Your task to perform on an android device: turn on bluetooth scan Image 0: 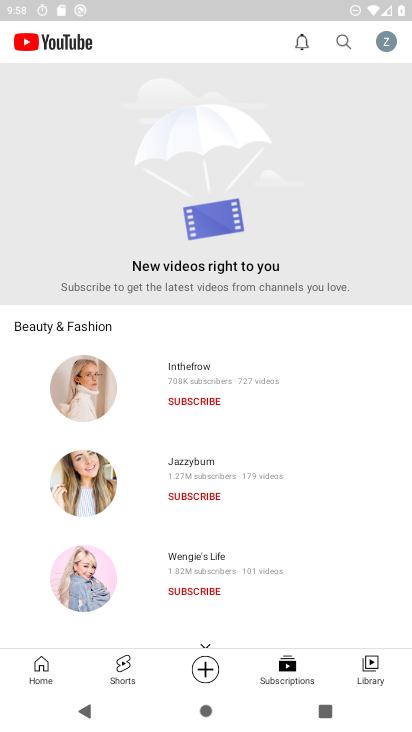
Step 0: drag from (279, 15) to (276, 568)
Your task to perform on an android device: turn on bluetooth scan Image 1: 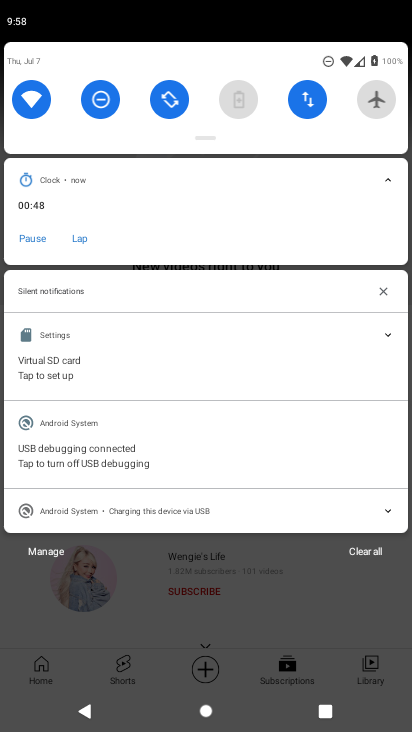
Step 1: drag from (276, 52) to (287, 721)
Your task to perform on an android device: turn on bluetooth scan Image 2: 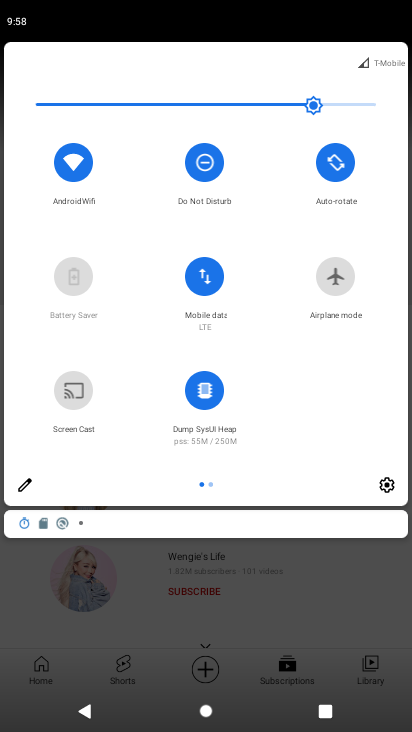
Step 2: click (381, 492)
Your task to perform on an android device: turn on bluetooth scan Image 3: 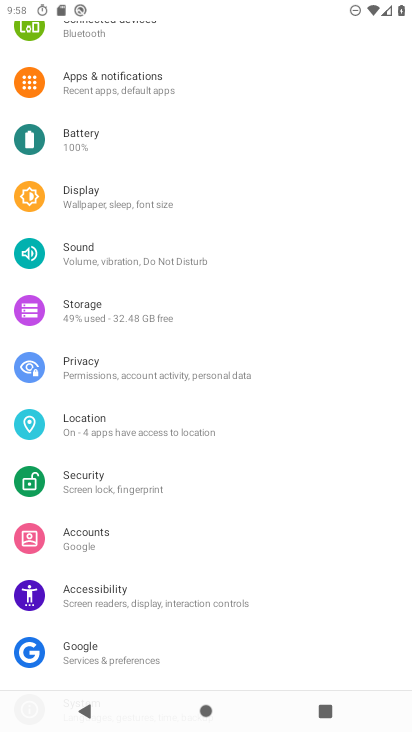
Step 3: click (103, 431)
Your task to perform on an android device: turn on bluetooth scan Image 4: 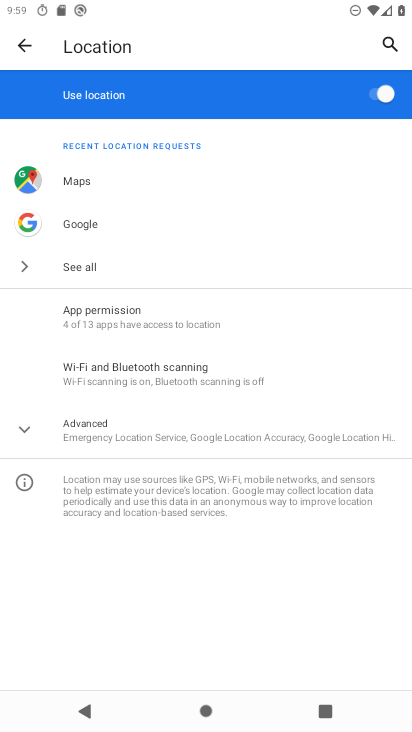
Step 4: click (260, 388)
Your task to perform on an android device: turn on bluetooth scan Image 5: 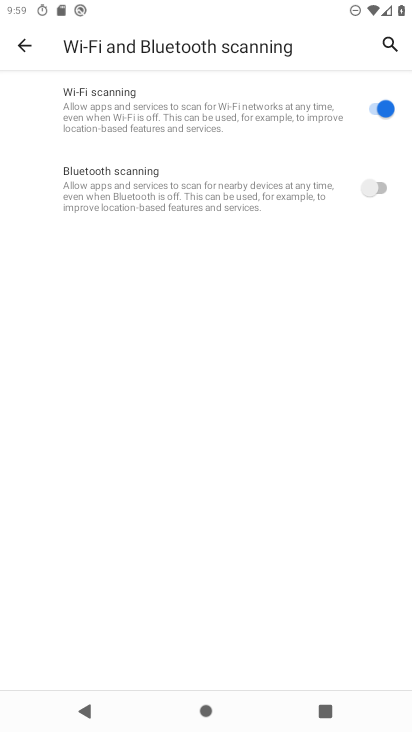
Step 5: click (379, 187)
Your task to perform on an android device: turn on bluetooth scan Image 6: 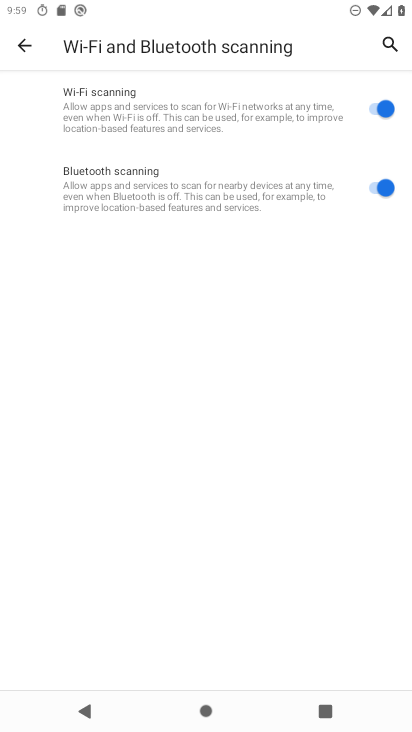
Step 6: task complete